Your task to perform on an android device: turn vacation reply on in the gmail app Image 0: 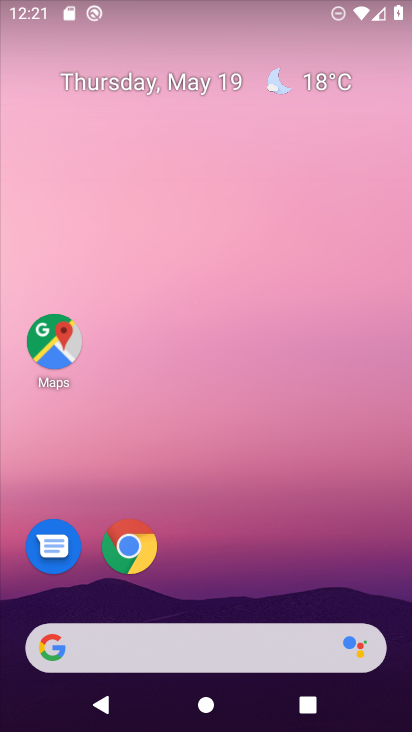
Step 0: drag from (237, 729) to (261, 140)
Your task to perform on an android device: turn vacation reply on in the gmail app Image 1: 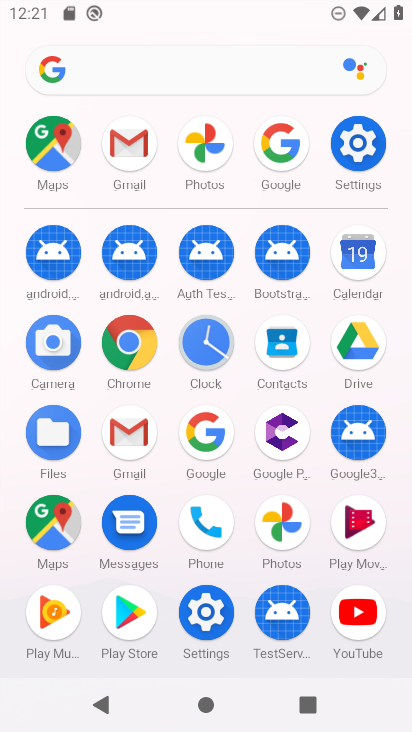
Step 1: click (127, 442)
Your task to perform on an android device: turn vacation reply on in the gmail app Image 2: 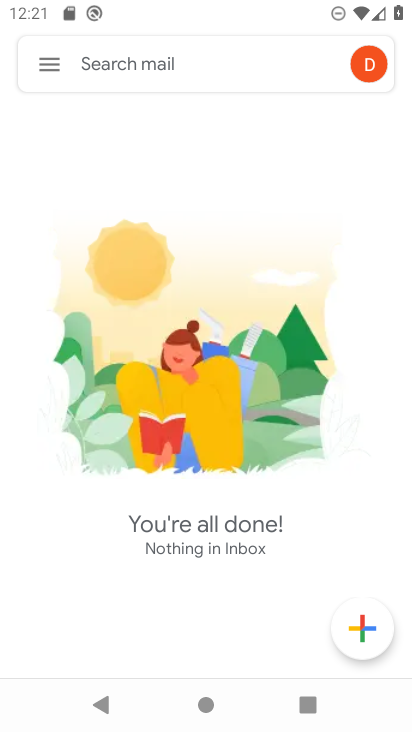
Step 2: click (53, 65)
Your task to perform on an android device: turn vacation reply on in the gmail app Image 3: 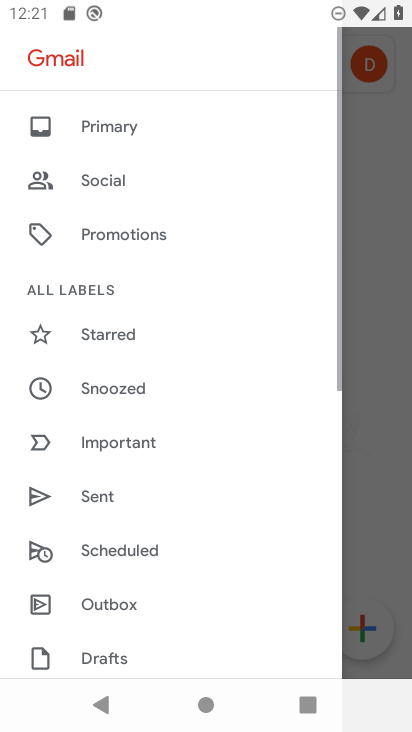
Step 3: drag from (118, 634) to (149, 295)
Your task to perform on an android device: turn vacation reply on in the gmail app Image 4: 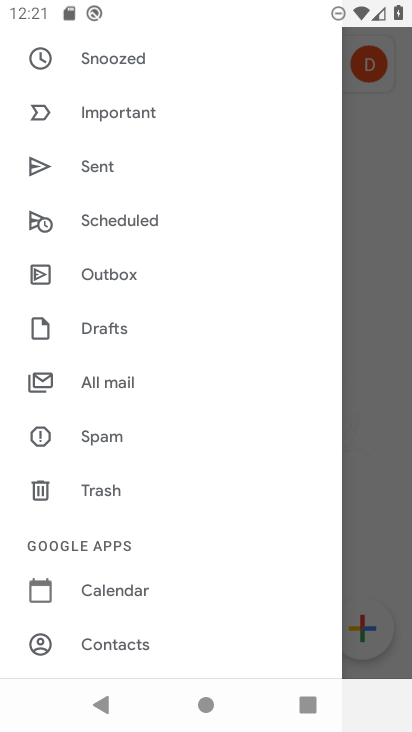
Step 4: drag from (126, 620) to (155, 280)
Your task to perform on an android device: turn vacation reply on in the gmail app Image 5: 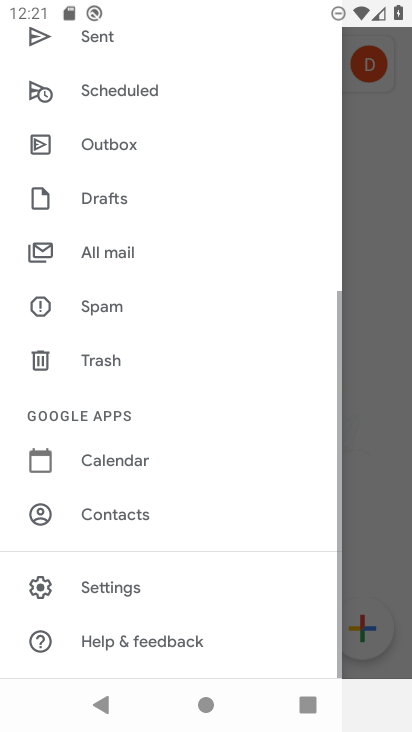
Step 5: click (124, 583)
Your task to perform on an android device: turn vacation reply on in the gmail app Image 6: 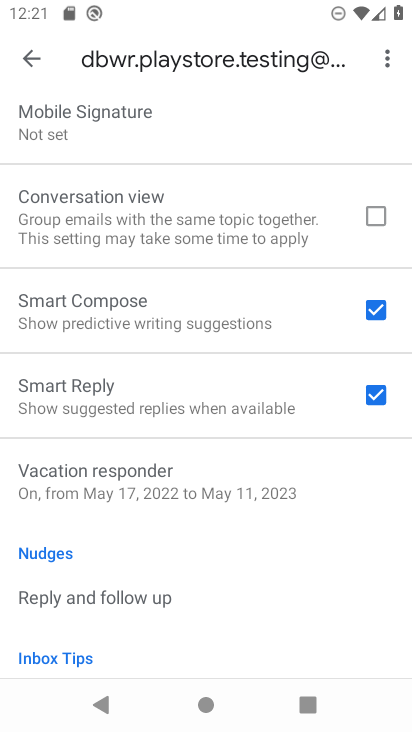
Step 6: drag from (125, 608) to (136, 265)
Your task to perform on an android device: turn vacation reply on in the gmail app Image 7: 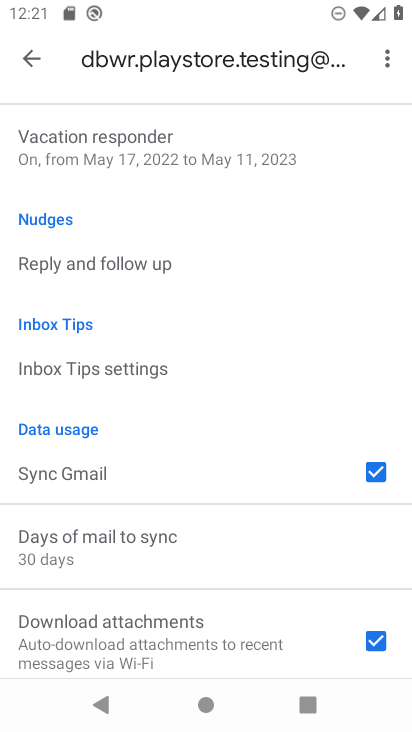
Step 7: drag from (210, 230) to (196, 609)
Your task to perform on an android device: turn vacation reply on in the gmail app Image 8: 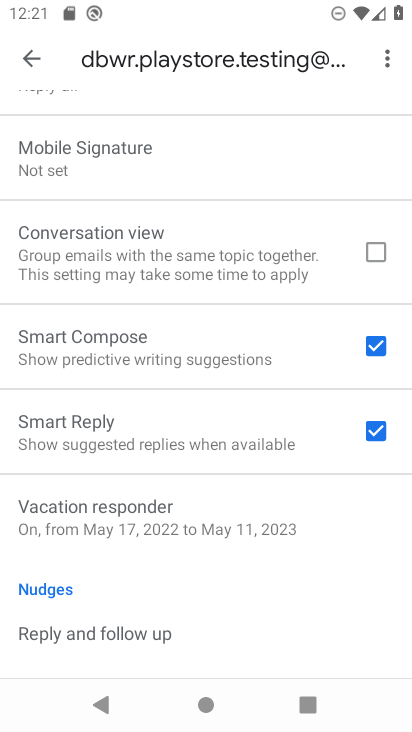
Step 8: click (114, 523)
Your task to perform on an android device: turn vacation reply on in the gmail app Image 9: 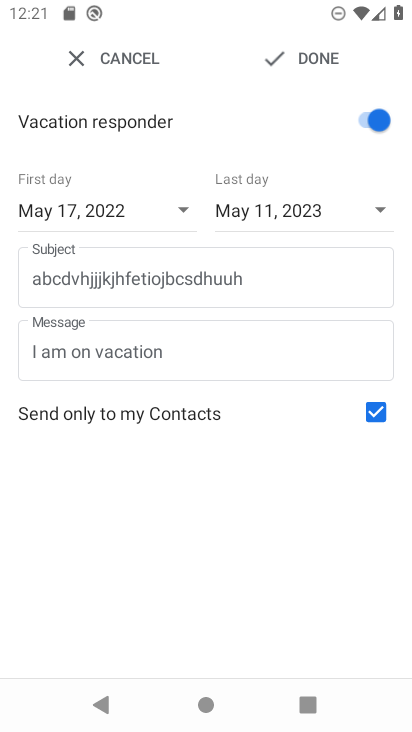
Step 9: task complete